Your task to perform on an android device: change notification settings in the gmail app Image 0: 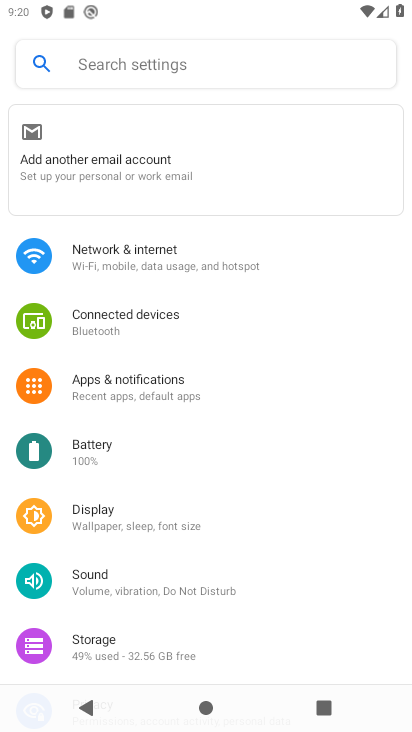
Step 0: drag from (327, 651) to (322, 384)
Your task to perform on an android device: change notification settings in the gmail app Image 1: 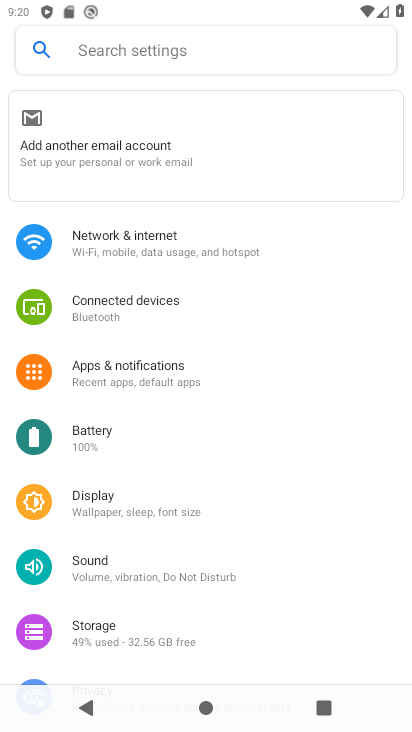
Step 1: press home button
Your task to perform on an android device: change notification settings in the gmail app Image 2: 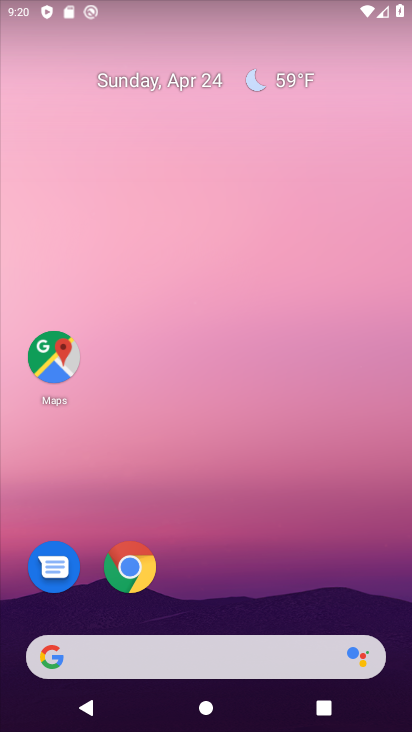
Step 2: click (353, 187)
Your task to perform on an android device: change notification settings in the gmail app Image 3: 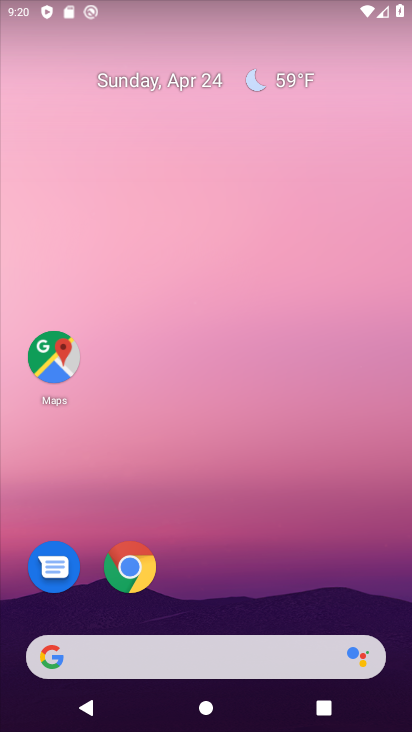
Step 3: drag from (393, 650) to (317, 150)
Your task to perform on an android device: change notification settings in the gmail app Image 4: 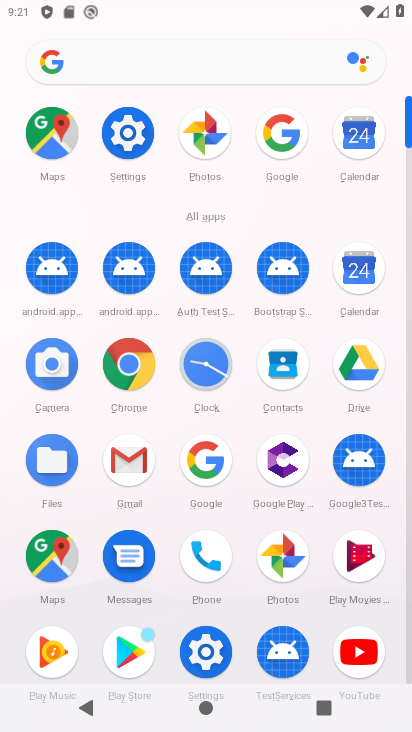
Step 4: click (125, 471)
Your task to perform on an android device: change notification settings in the gmail app Image 5: 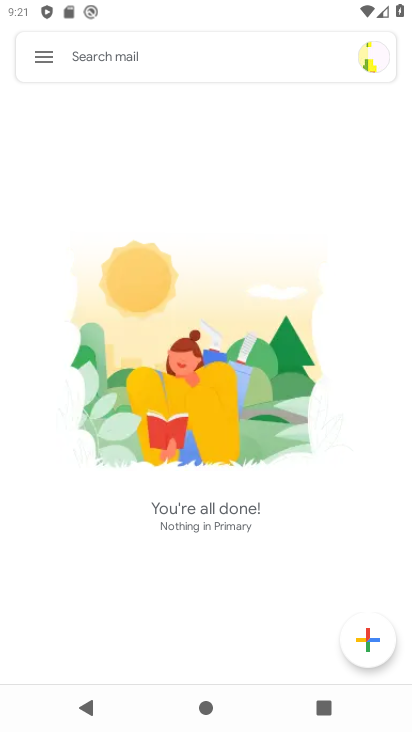
Step 5: click (46, 53)
Your task to perform on an android device: change notification settings in the gmail app Image 6: 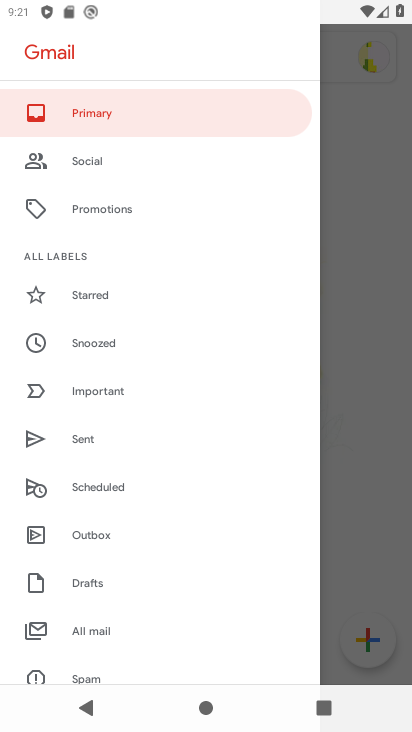
Step 6: drag from (230, 639) to (232, 192)
Your task to perform on an android device: change notification settings in the gmail app Image 7: 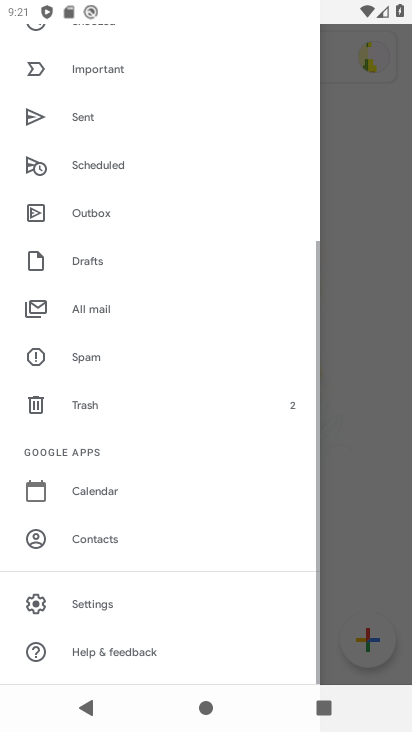
Step 7: drag from (233, 476) to (208, 279)
Your task to perform on an android device: change notification settings in the gmail app Image 8: 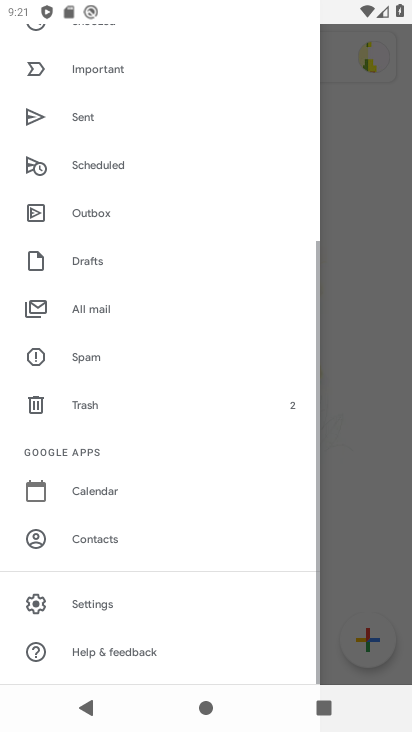
Step 8: click (69, 600)
Your task to perform on an android device: change notification settings in the gmail app Image 9: 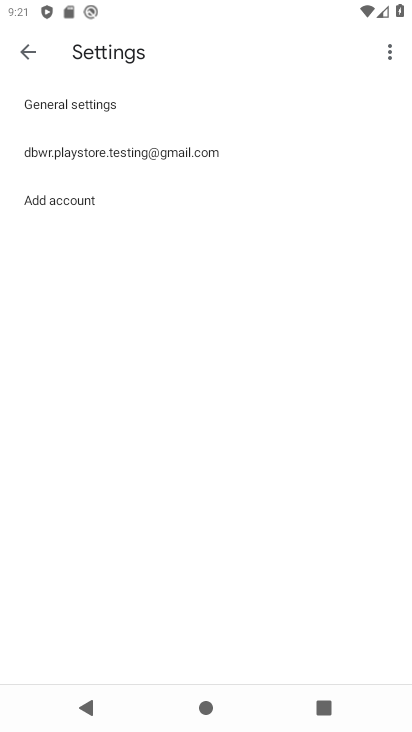
Step 9: click (51, 105)
Your task to perform on an android device: change notification settings in the gmail app Image 10: 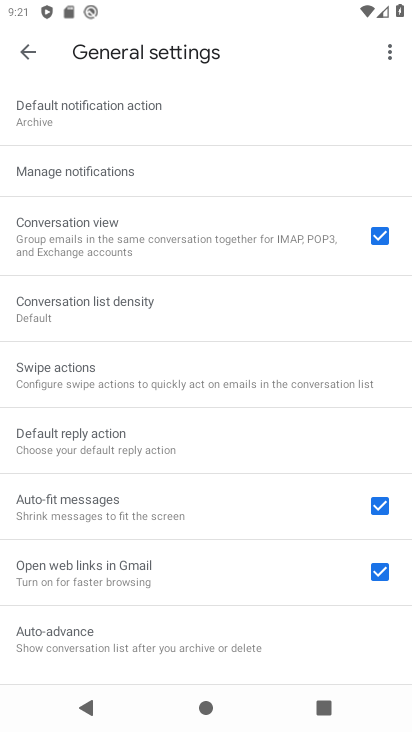
Step 10: click (76, 174)
Your task to perform on an android device: change notification settings in the gmail app Image 11: 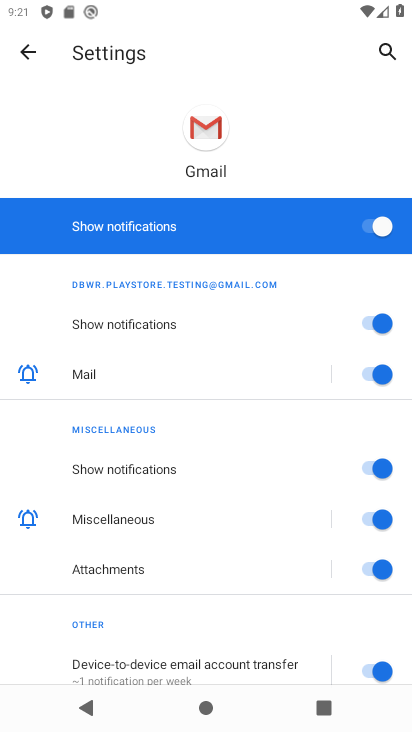
Step 11: click (365, 219)
Your task to perform on an android device: change notification settings in the gmail app Image 12: 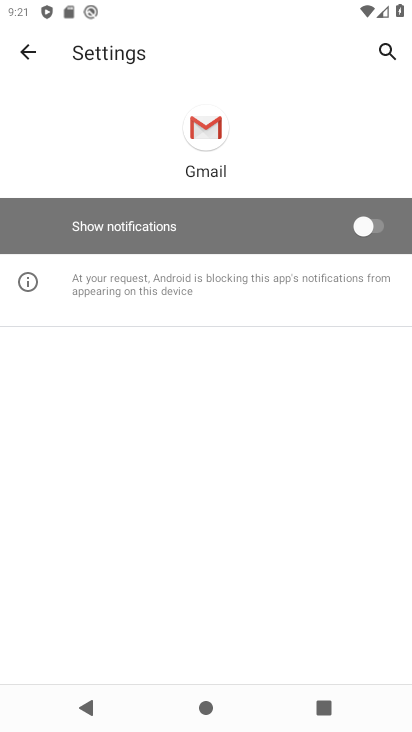
Step 12: task complete